Your task to perform on an android device: What's on my calendar tomorrow? Image 0: 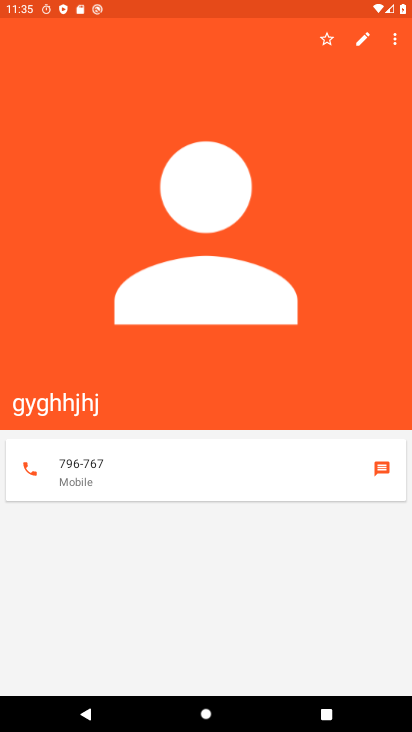
Step 0: press home button
Your task to perform on an android device: What's on my calendar tomorrow? Image 1: 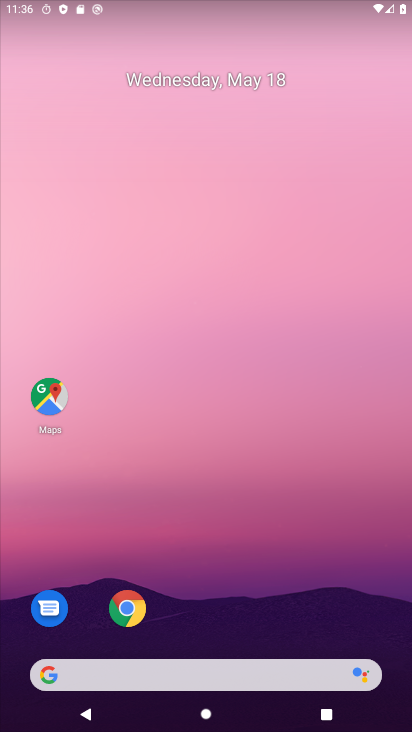
Step 1: drag from (280, 611) to (279, 47)
Your task to perform on an android device: What's on my calendar tomorrow? Image 2: 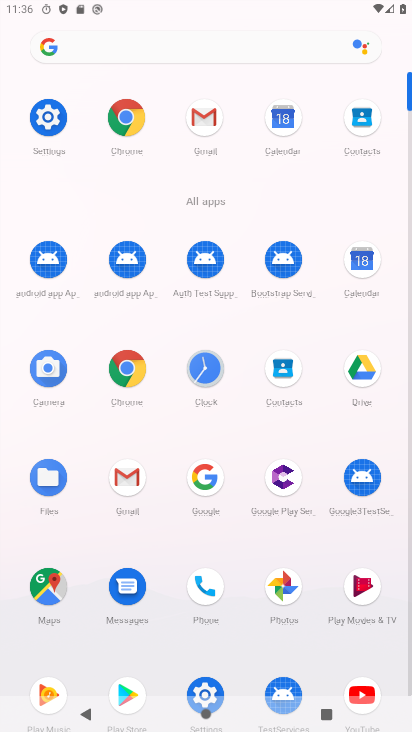
Step 2: click (368, 256)
Your task to perform on an android device: What's on my calendar tomorrow? Image 3: 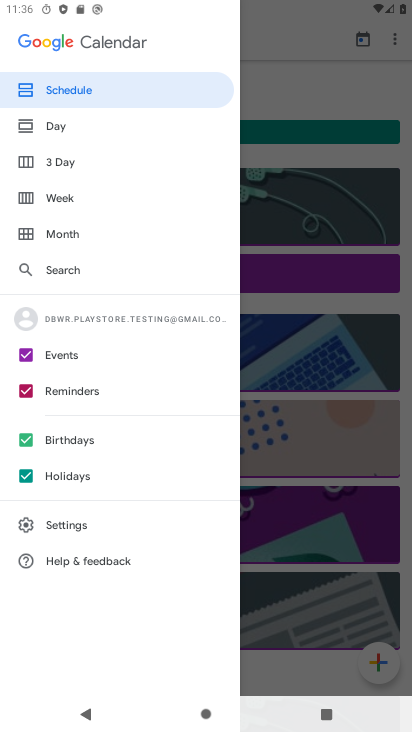
Step 3: click (123, 91)
Your task to perform on an android device: What's on my calendar tomorrow? Image 4: 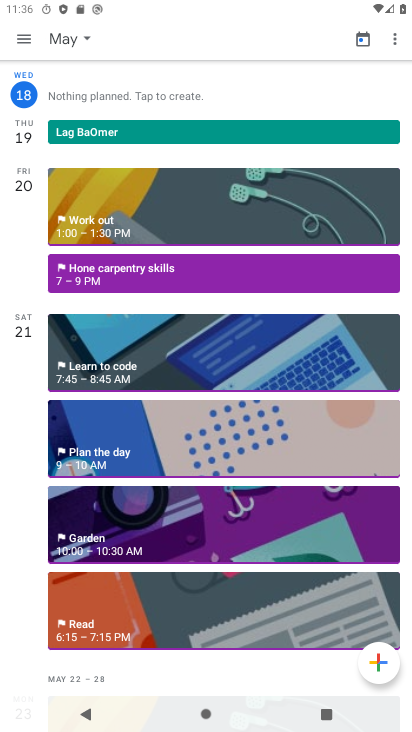
Step 4: click (76, 43)
Your task to perform on an android device: What's on my calendar tomorrow? Image 5: 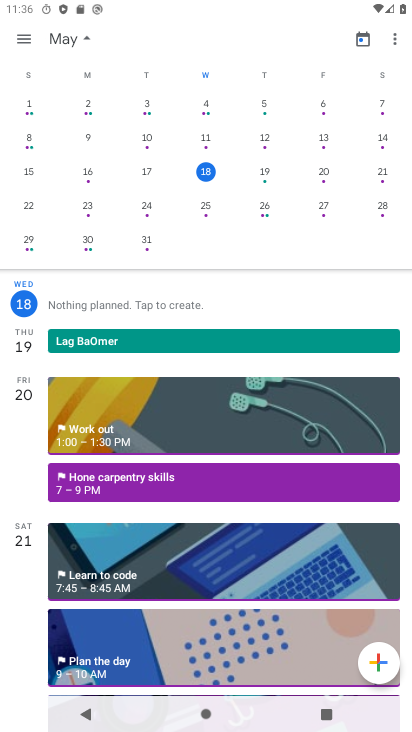
Step 5: click (327, 174)
Your task to perform on an android device: What's on my calendar tomorrow? Image 6: 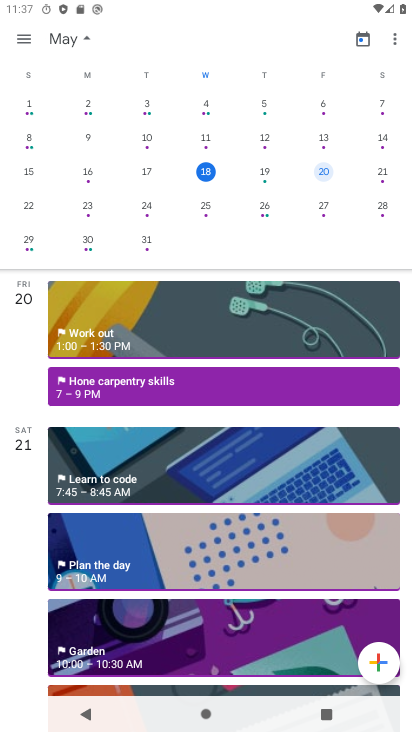
Step 6: task complete